Your task to perform on an android device: Open eBay Image 0: 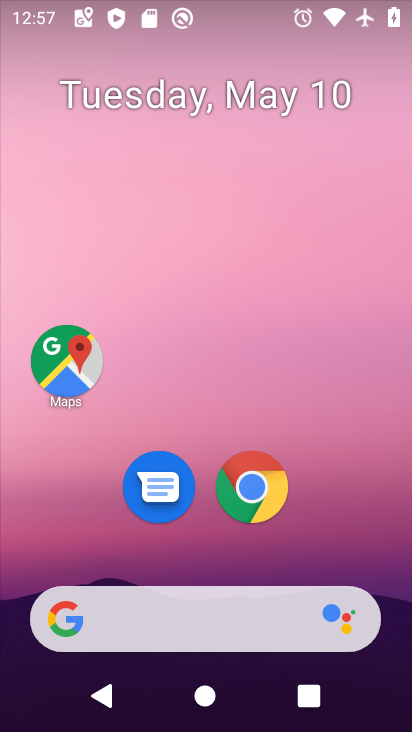
Step 0: click (308, 533)
Your task to perform on an android device: Open eBay Image 1: 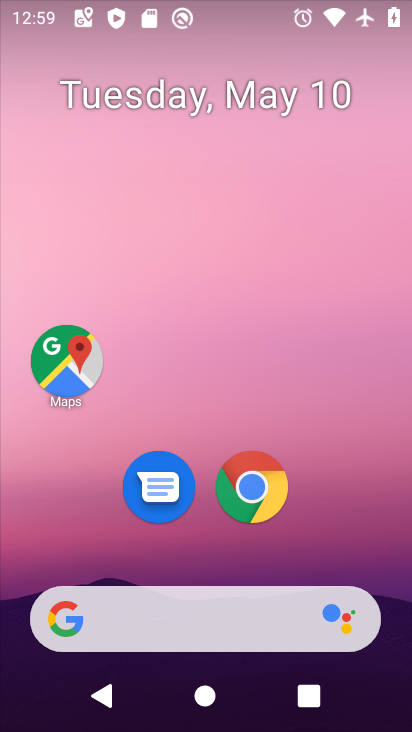
Step 1: drag from (357, 521) to (360, 50)
Your task to perform on an android device: Open eBay Image 2: 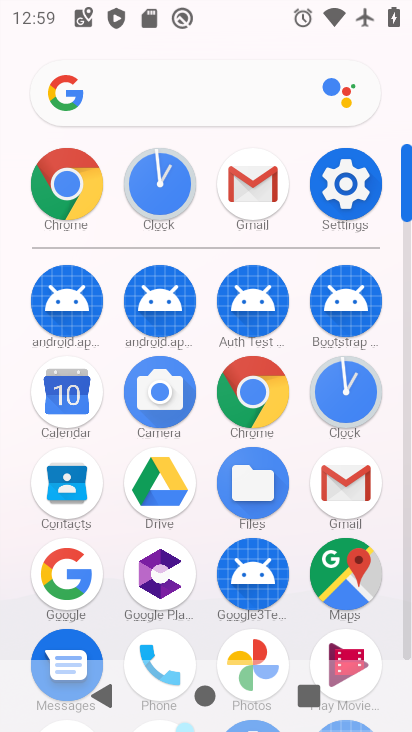
Step 2: click (67, 199)
Your task to perform on an android device: Open eBay Image 3: 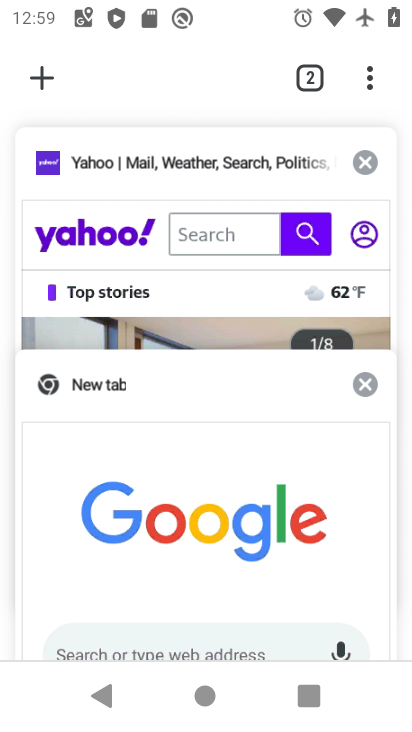
Step 3: click (53, 92)
Your task to perform on an android device: Open eBay Image 4: 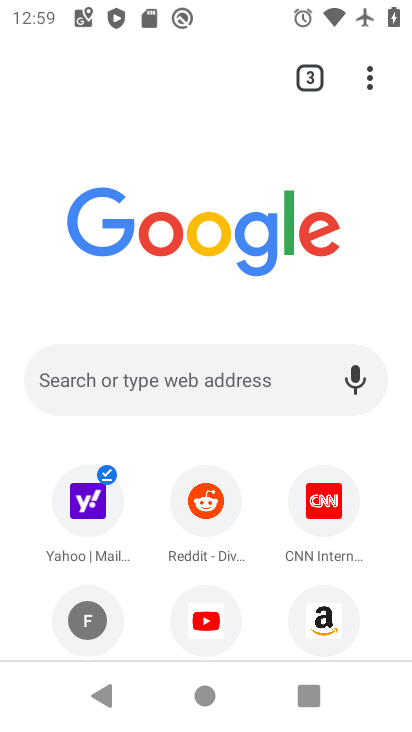
Step 4: click (206, 402)
Your task to perform on an android device: Open eBay Image 5: 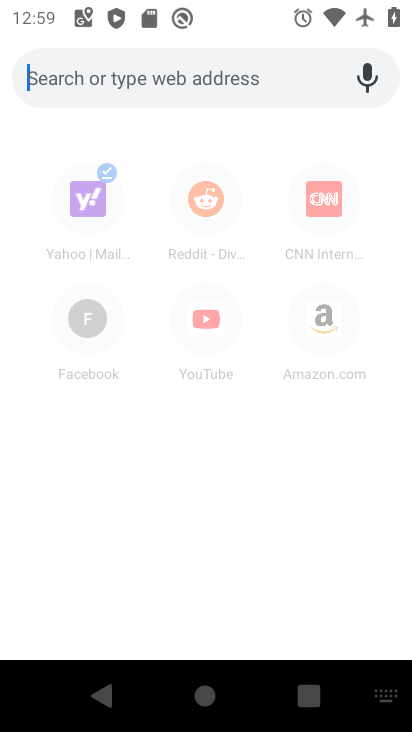
Step 5: type "ebay"
Your task to perform on an android device: Open eBay Image 6: 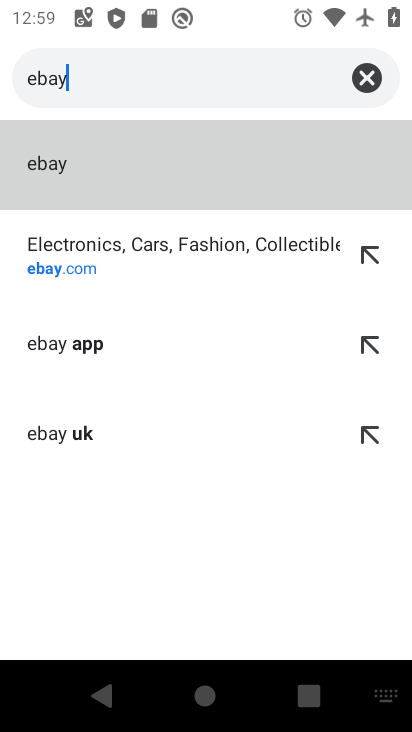
Step 6: click (192, 240)
Your task to perform on an android device: Open eBay Image 7: 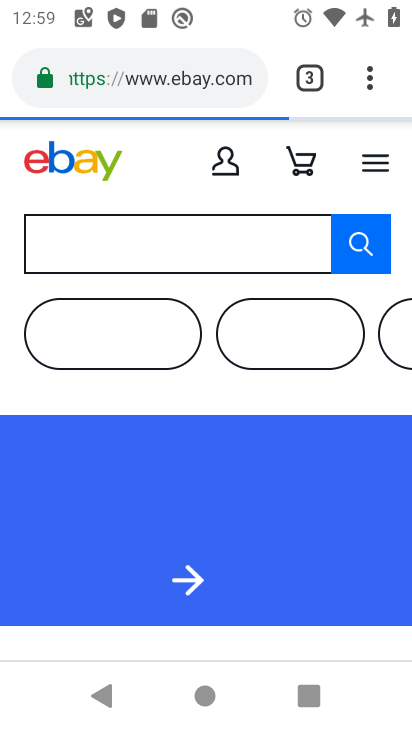
Step 7: task complete